Your task to perform on an android device: Show me popular videos on Youtube Image 0: 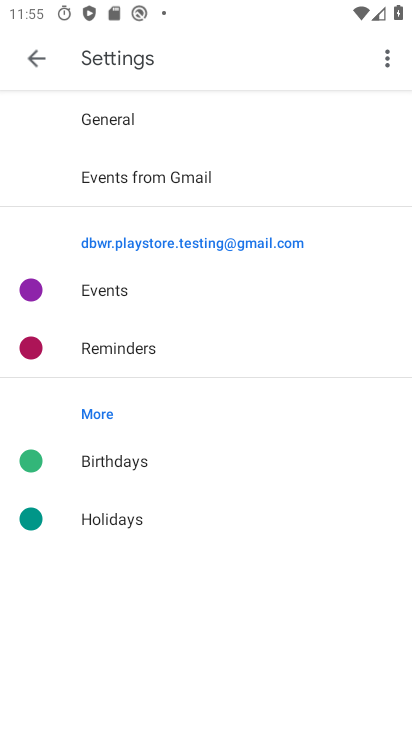
Step 0: click (404, 314)
Your task to perform on an android device: Show me popular videos on Youtube Image 1: 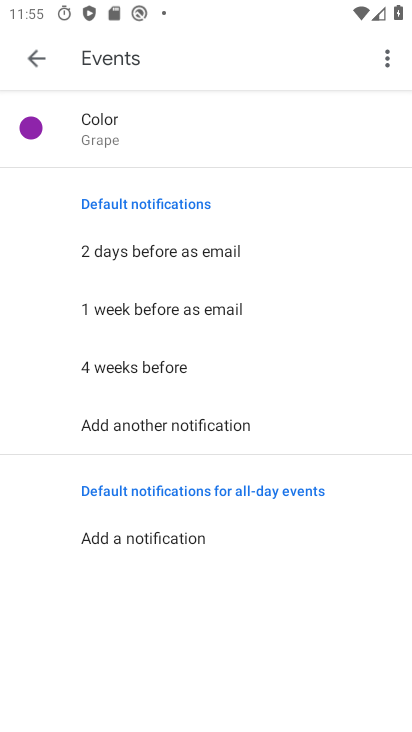
Step 1: press back button
Your task to perform on an android device: Show me popular videos on Youtube Image 2: 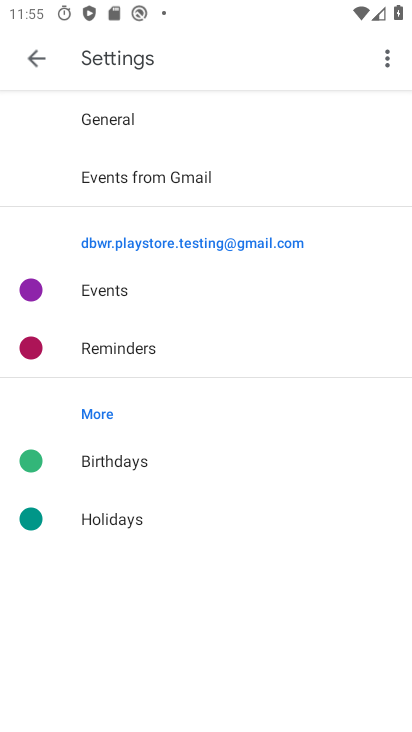
Step 2: click (25, 58)
Your task to perform on an android device: Show me popular videos on Youtube Image 3: 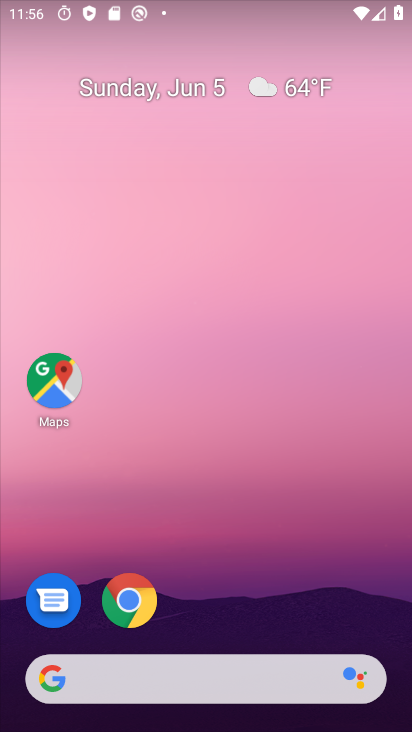
Step 3: drag from (260, 664) to (135, 116)
Your task to perform on an android device: Show me popular videos on Youtube Image 4: 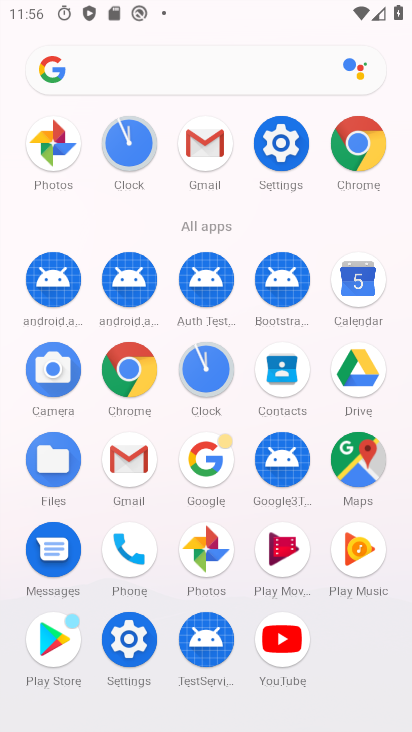
Step 4: click (277, 643)
Your task to perform on an android device: Show me popular videos on Youtube Image 5: 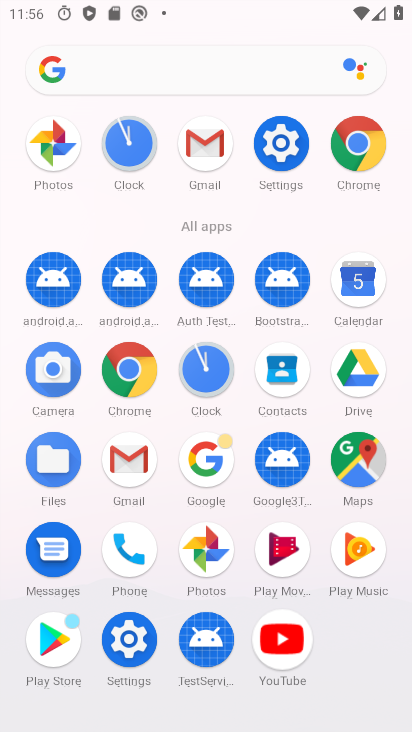
Step 5: click (280, 643)
Your task to perform on an android device: Show me popular videos on Youtube Image 6: 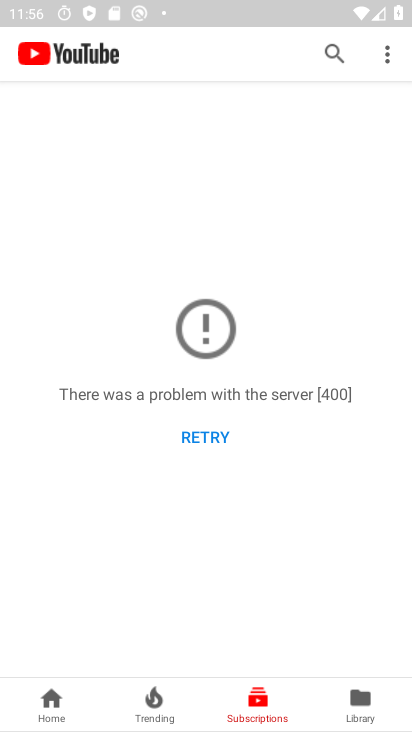
Step 6: click (34, 699)
Your task to perform on an android device: Show me popular videos on Youtube Image 7: 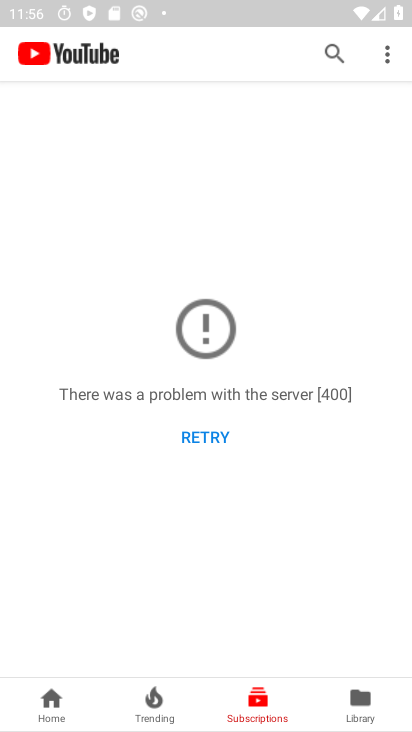
Step 7: click (38, 690)
Your task to perform on an android device: Show me popular videos on Youtube Image 8: 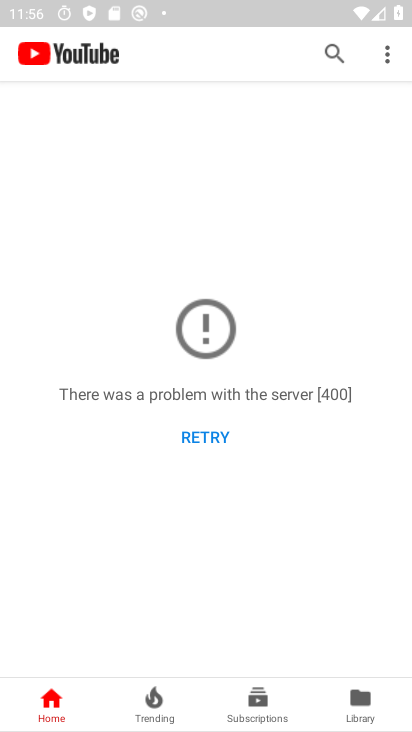
Step 8: task complete